Your task to perform on an android device: Open the map Image 0: 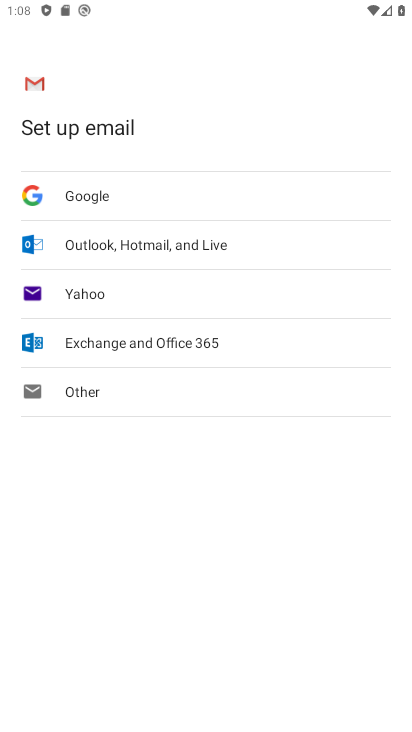
Step 0: press back button
Your task to perform on an android device: Open the map Image 1: 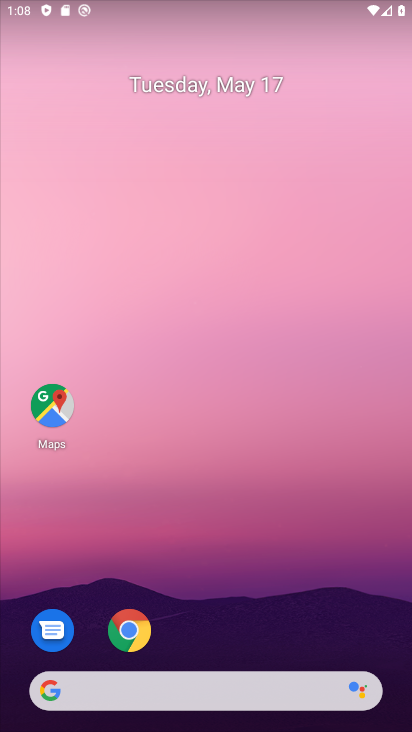
Step 1: click (53, 392)
Your task to perform on an android device: Open the map Image 2: 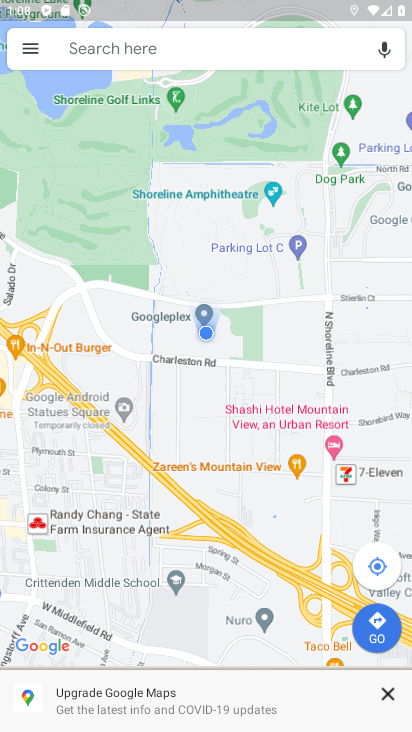
Step 2: task complete